Your task to perform on an android device: Do I have any events tomorrow? Image 0: 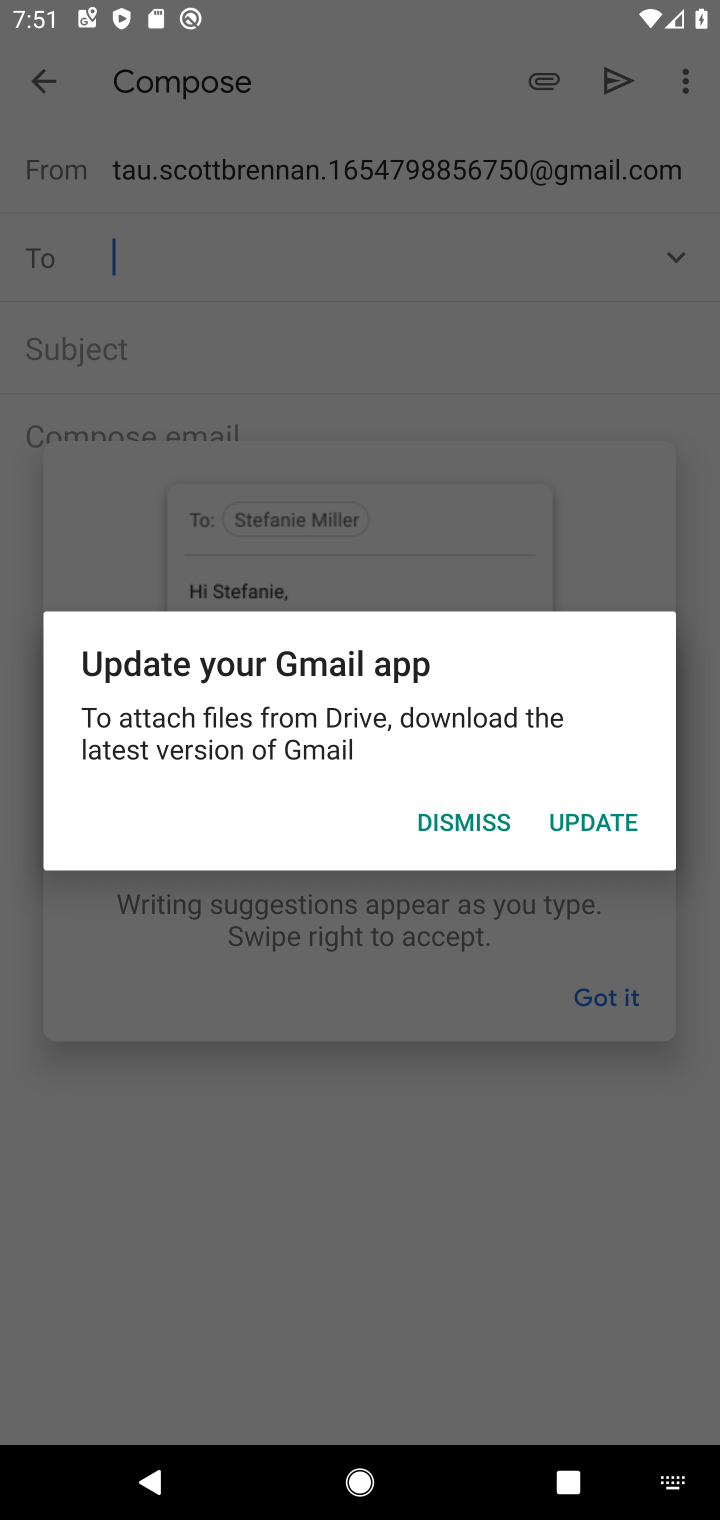
Step 0: press home button
Your task to perform on an android device: Do I have any events tomorrow? Image 1: 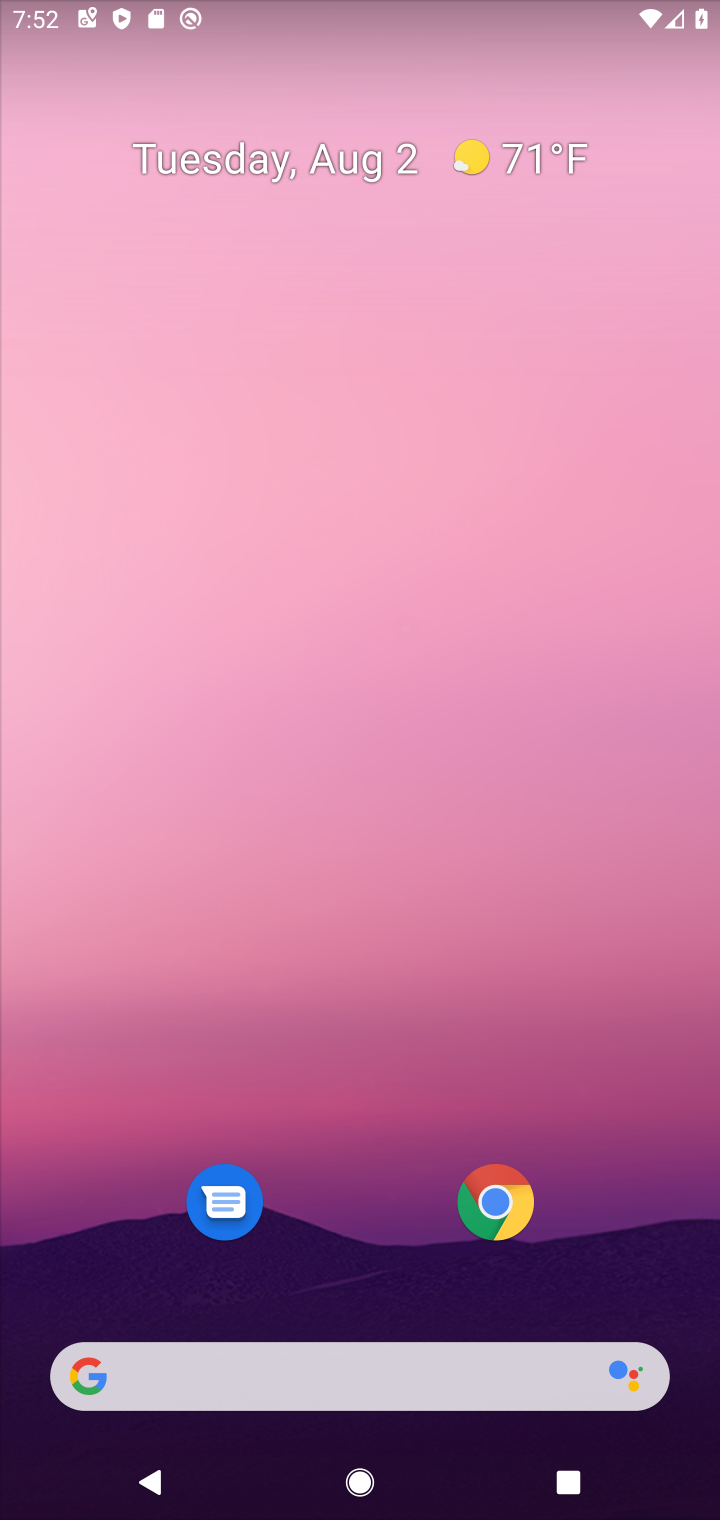
Step 1: drag from (351, 1301) to (348, 180)
Your task to perform on an android device: Do I have any events tomorrow? Image 2: 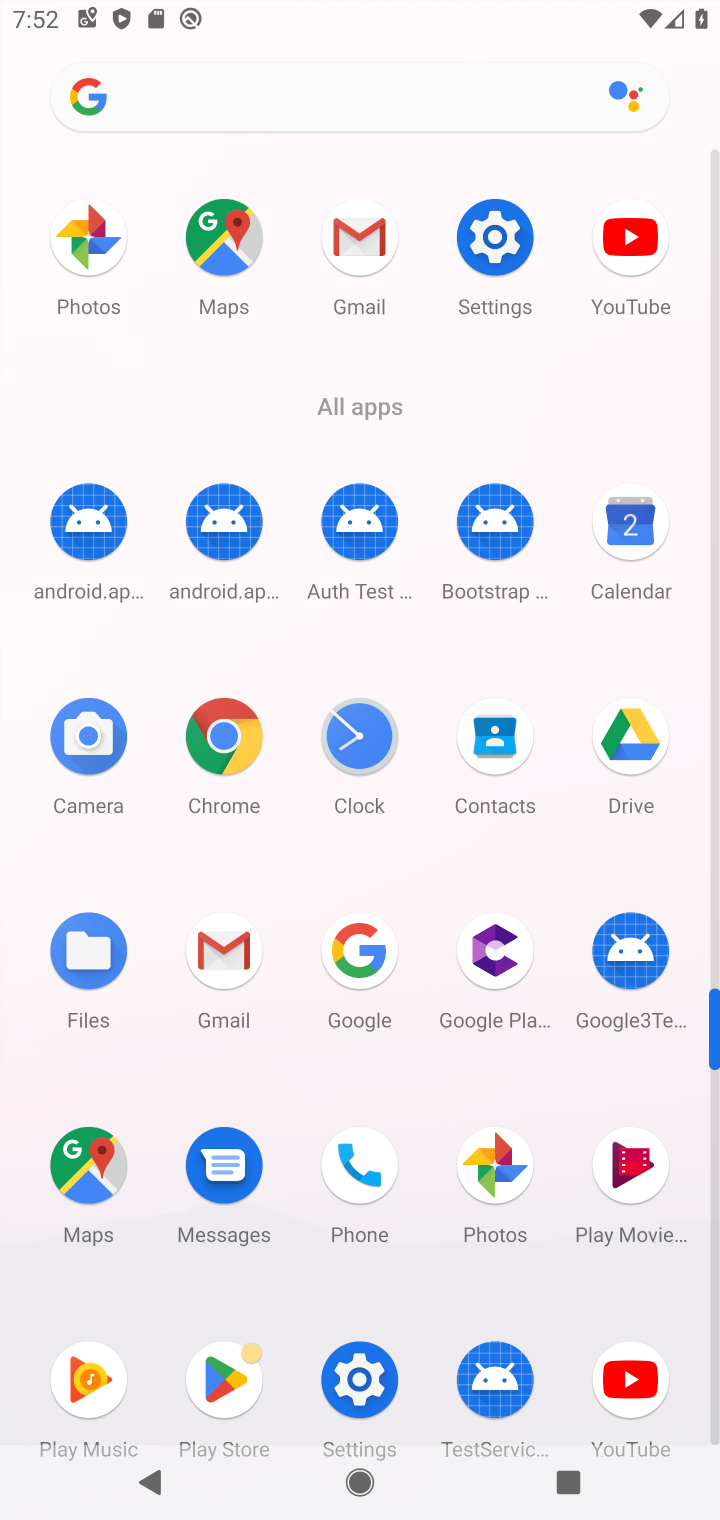
Step 2: click (611, 528)
Your task to perform on an android device: Do I have any events tomorrow? Image 3: 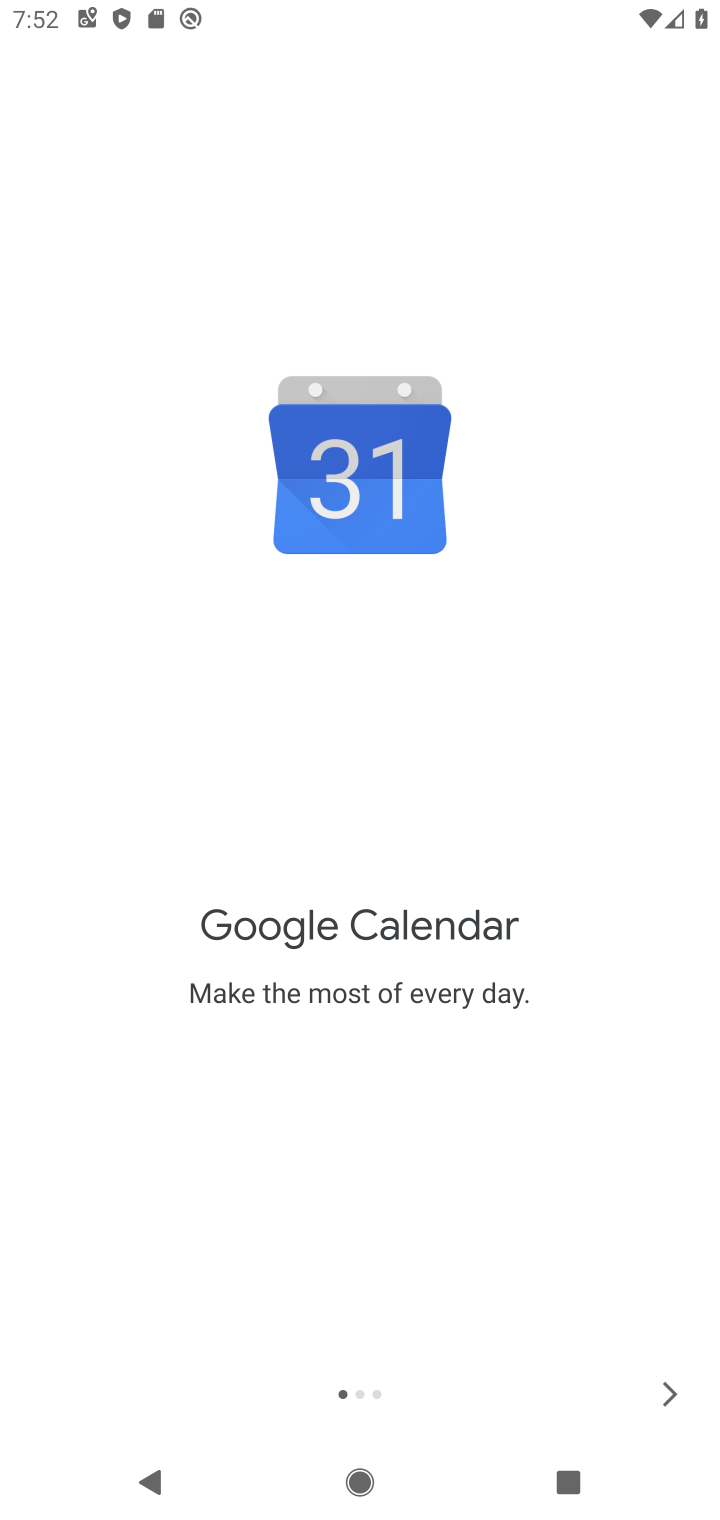
Step 3: click (666, 1410)
Your task to perform on an android device: Do I have any events tomorrow? Image 4: 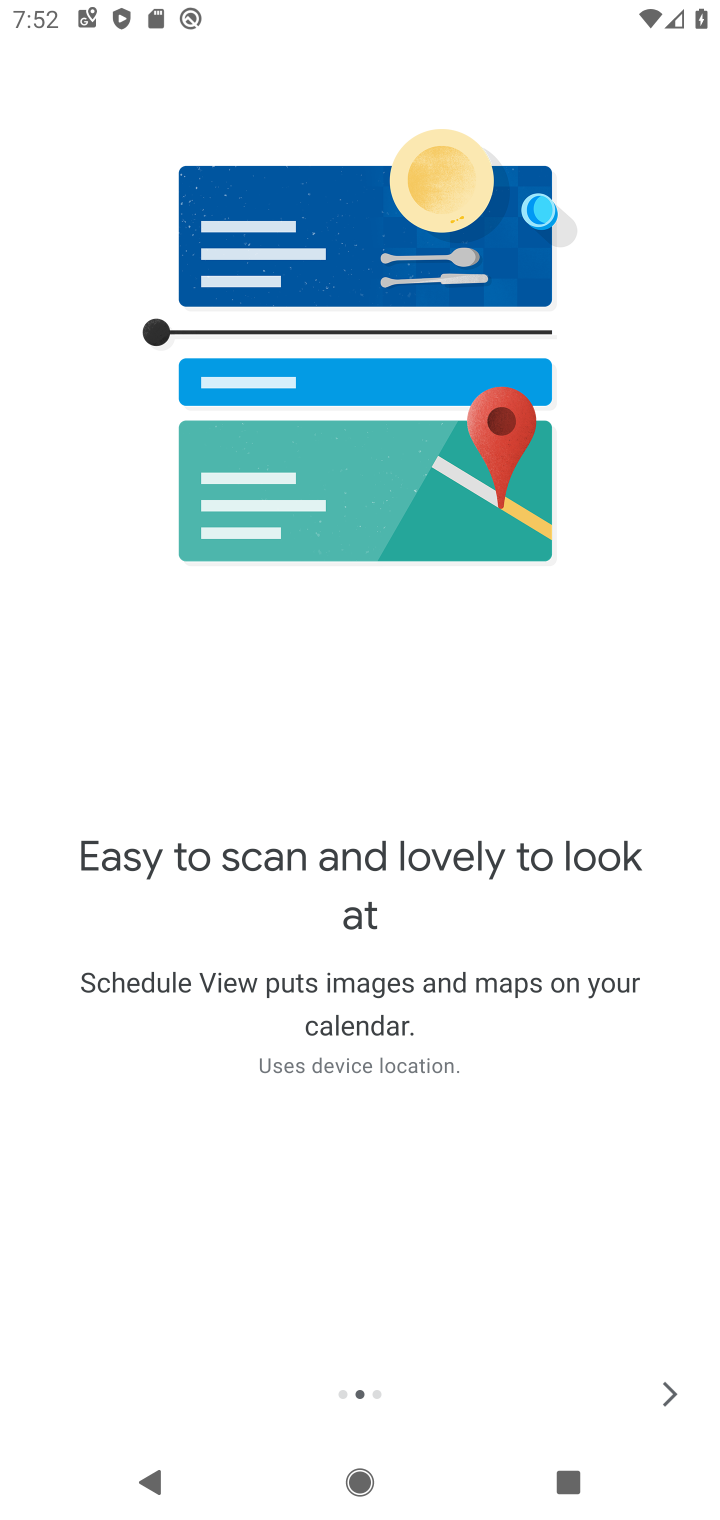
Step 4: click (666, 1410)
Your task to perform on an android device: Do I have any events tomorrow? Image 5: 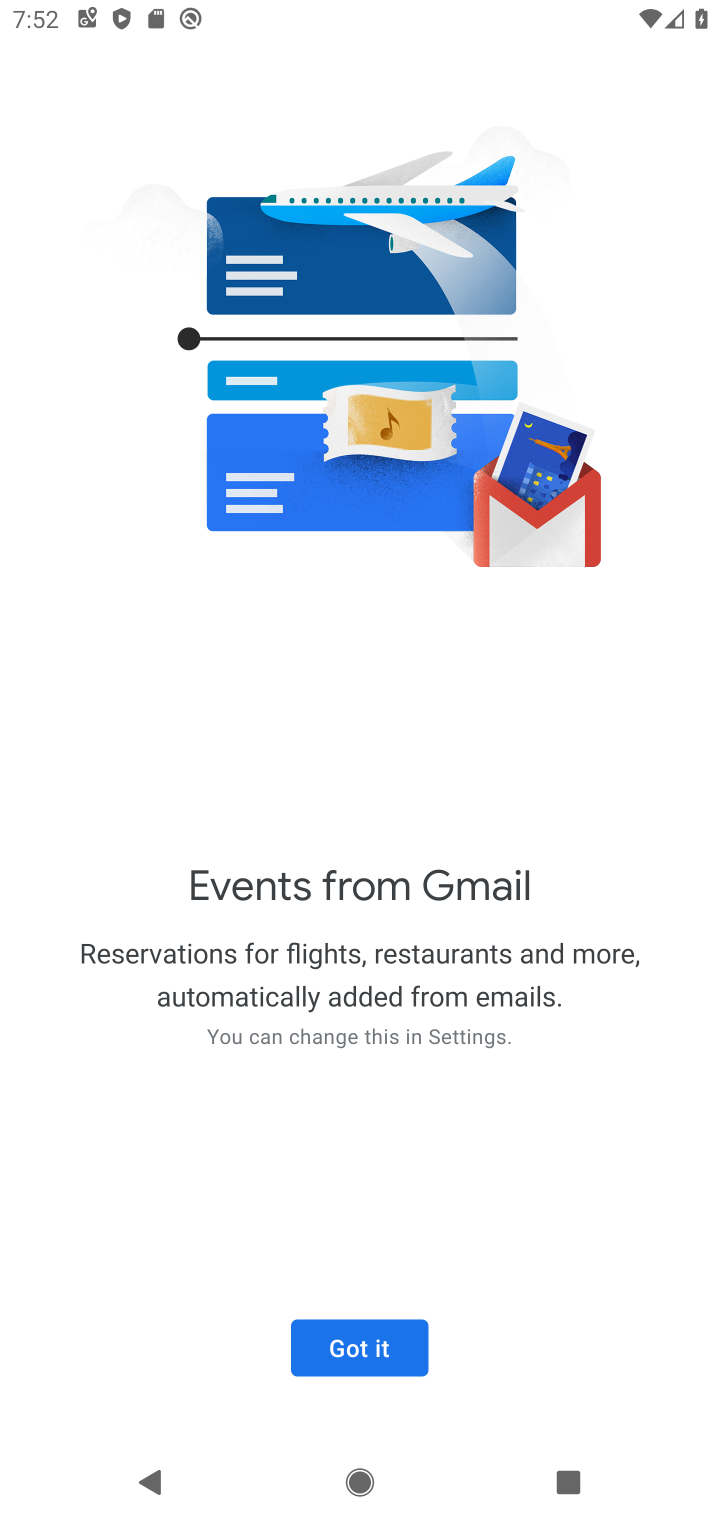
Step 5: click (332, 1357)
Your task to perform on an android device: Do I have any events tomorrow? Image 6: 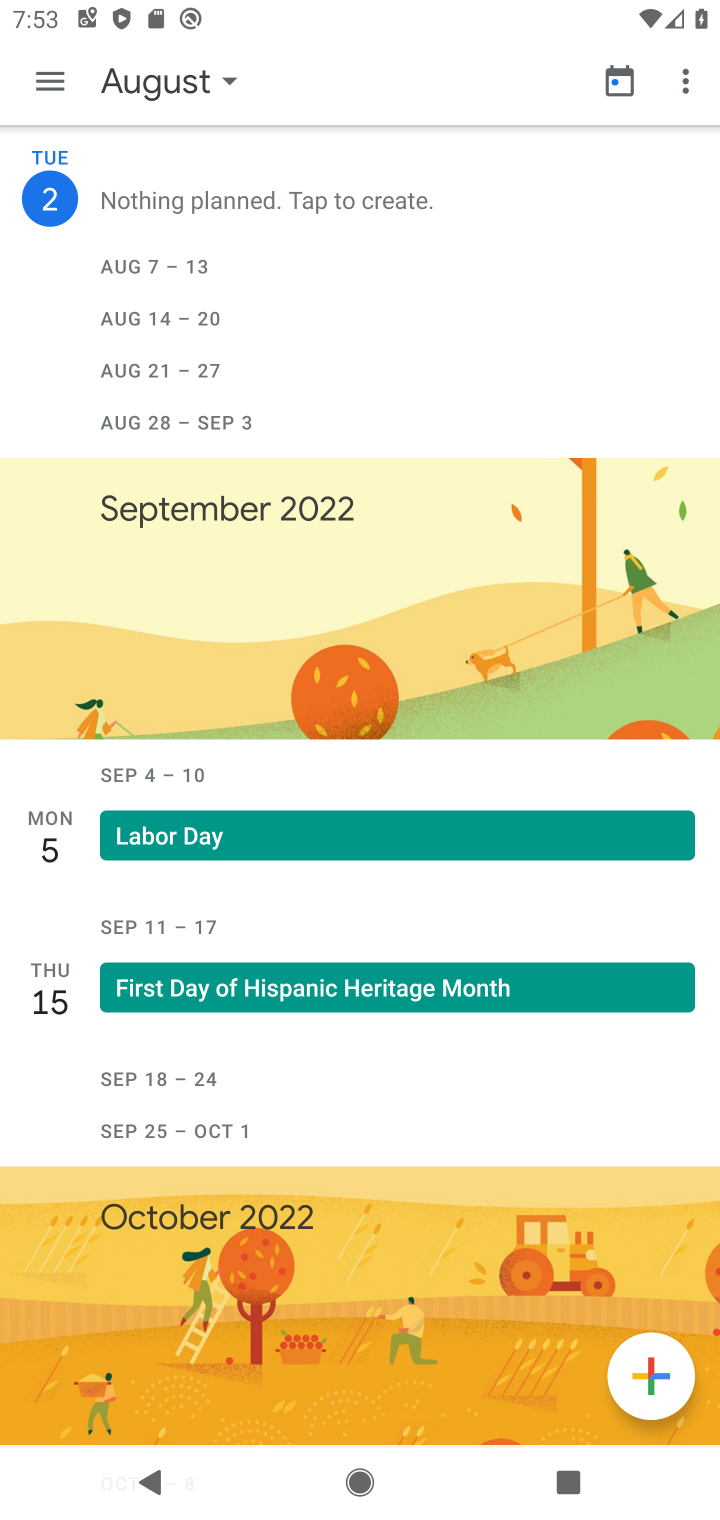
Step 6: click (220, 78)
Your task to perform on an android device: Do I have any events tomorrow? Image 7: 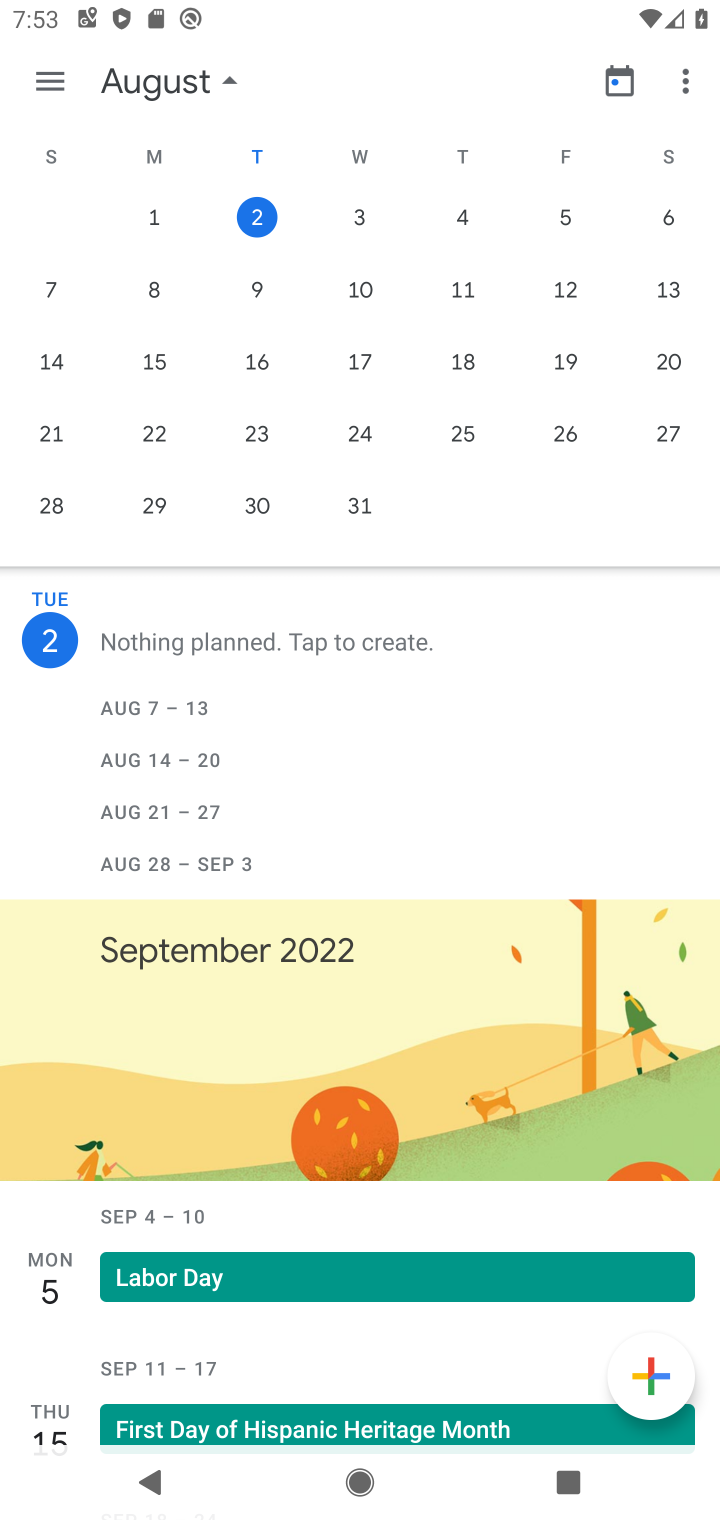
Step 7: click (357, 213)
Your task to perform on an android device: Do I have any events tomorrow? Image 8: 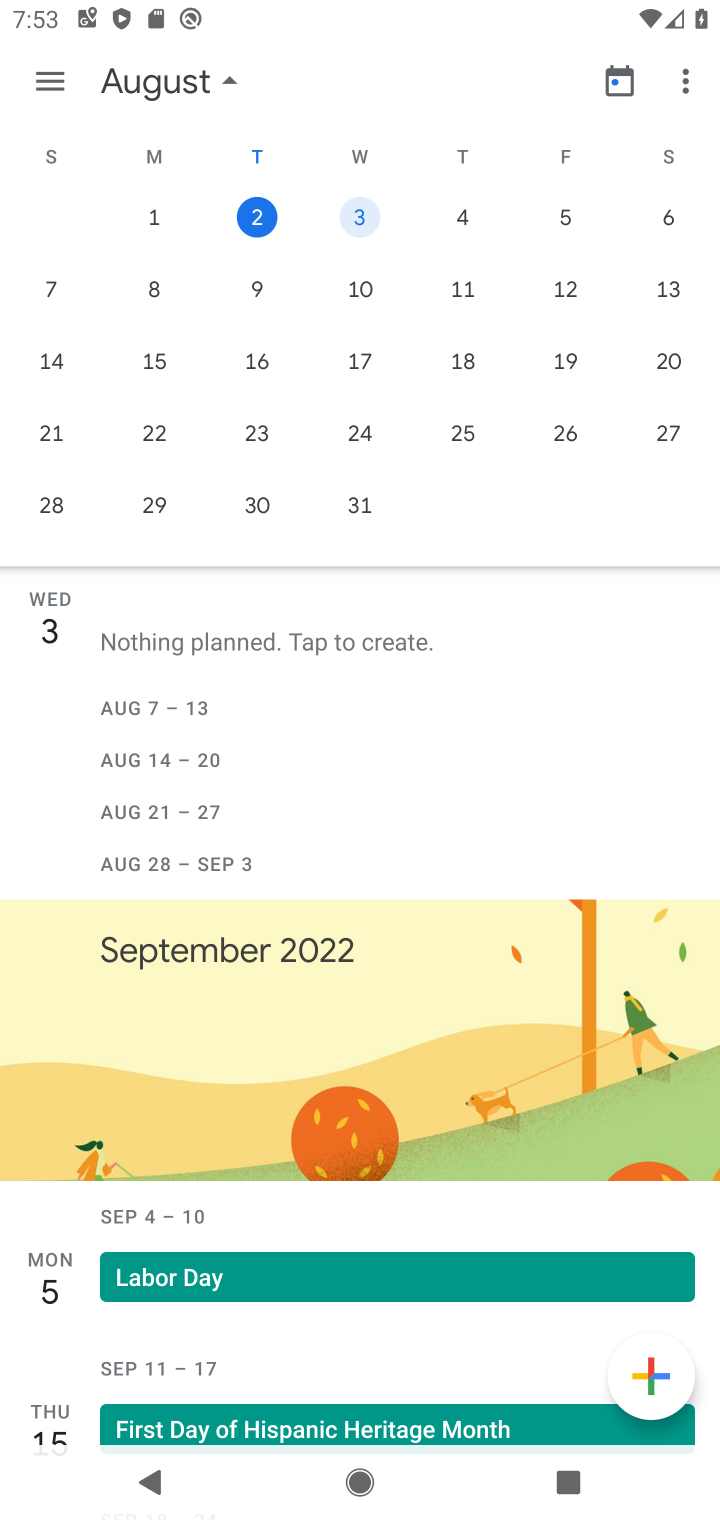
Step 8: click (56, 83)
Your task to perform on an android device: Do I have any events tomorrow? Image 9: 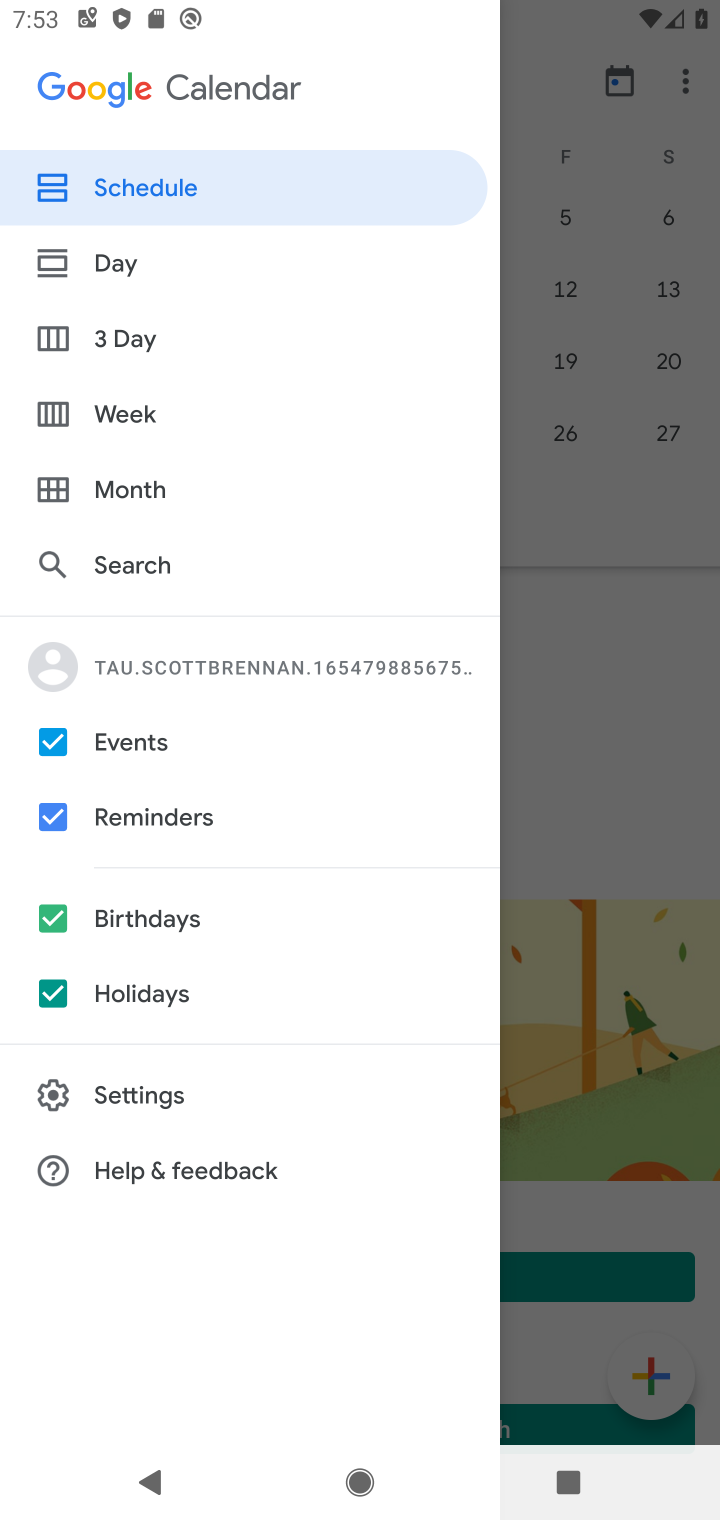
Step 9: click (112, 259)
Your task to perform on an android device: Do I have any events tomorrow? Image 10: 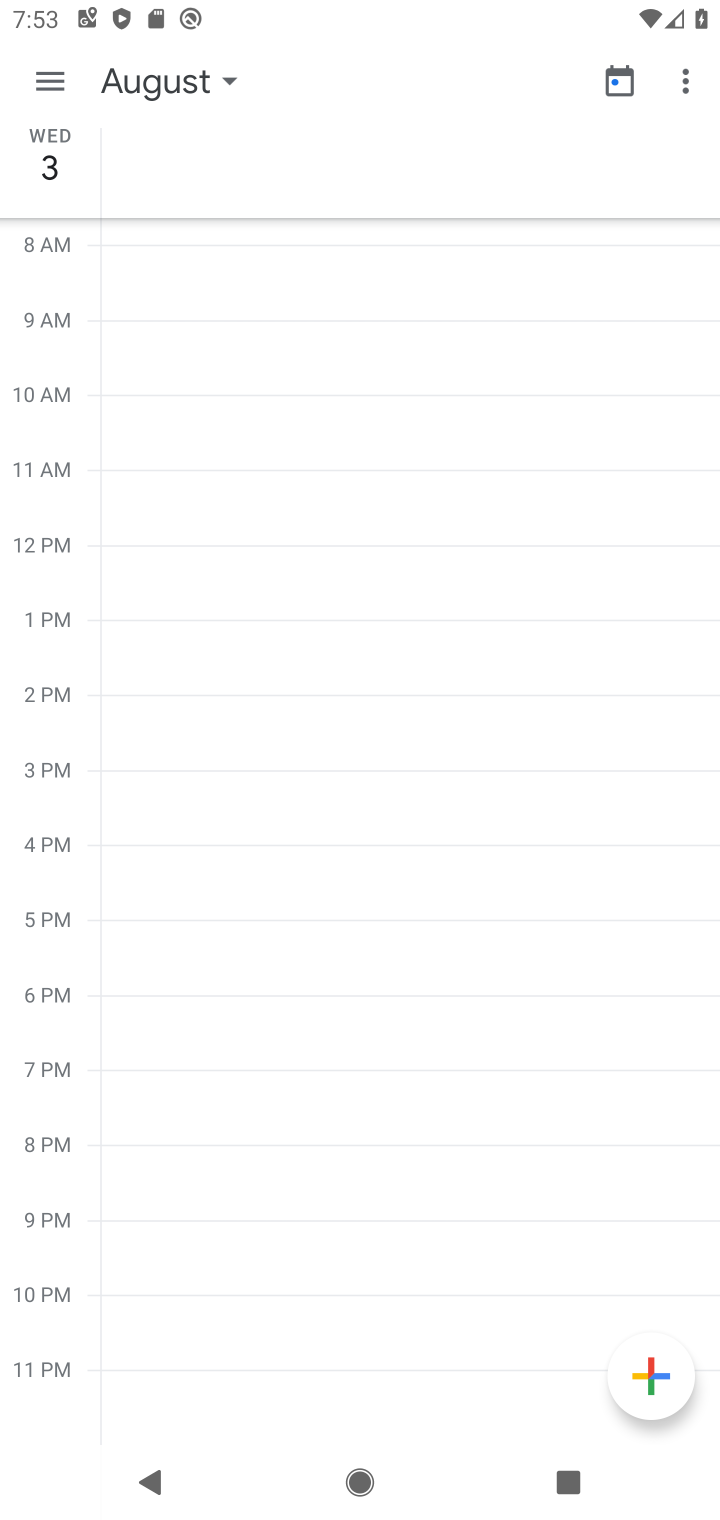
Step 10: task complete